Your task to perform on an android device: Go to Yahoo.com Image 0: 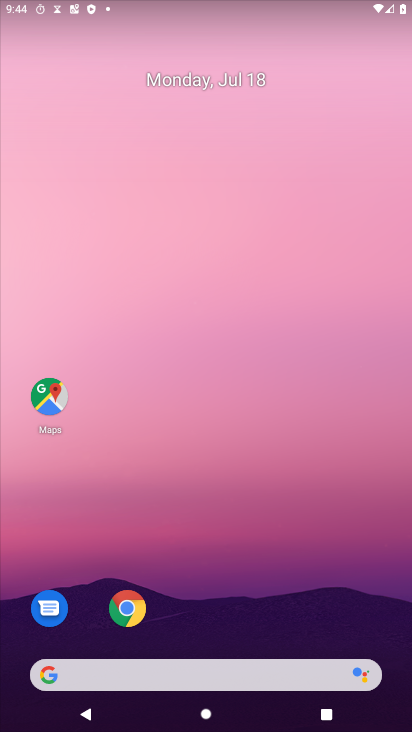
Step 0: click (119, 609)
Your task to perform on an android device: Go to Yahoo.com Image 1: 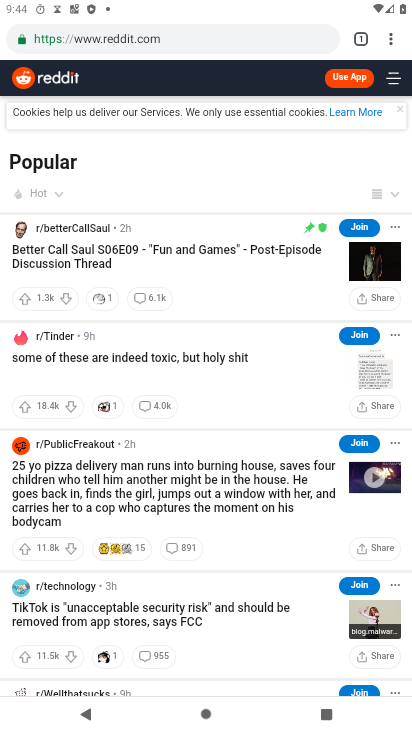
Step 1: click (174, 34)
Your task to perform on an android device: Go to Yahoo.com Image 2: 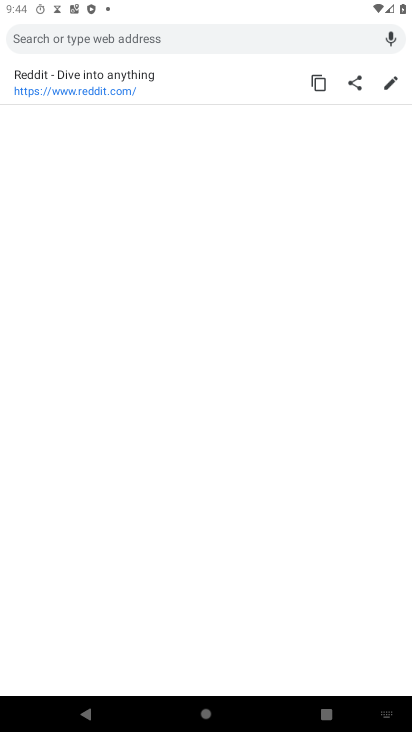
Step 2: type "www.yahoo.com"
Your task to perform on an android device: Go to Yahoo.com Image 3: 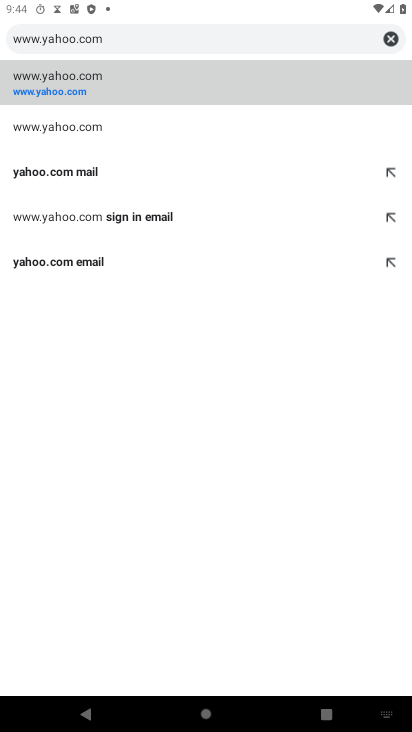
Step 3: click (48, 91)
Your task to perform on an android device: Go to Yahoo.com Image 4: 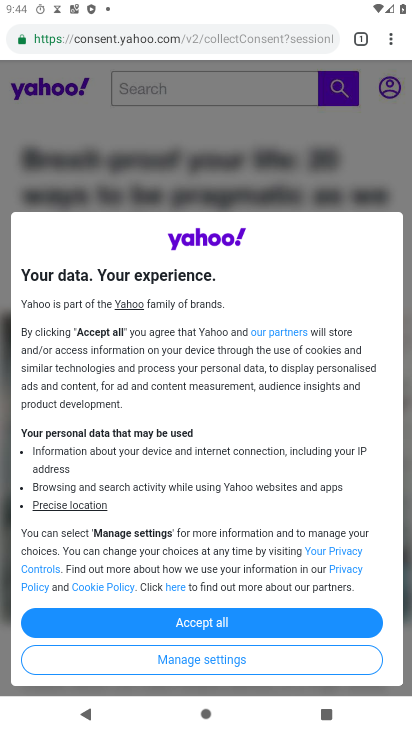
Step 4: task complete